Your task to perform on an android device: Go to Amazon Image 0: 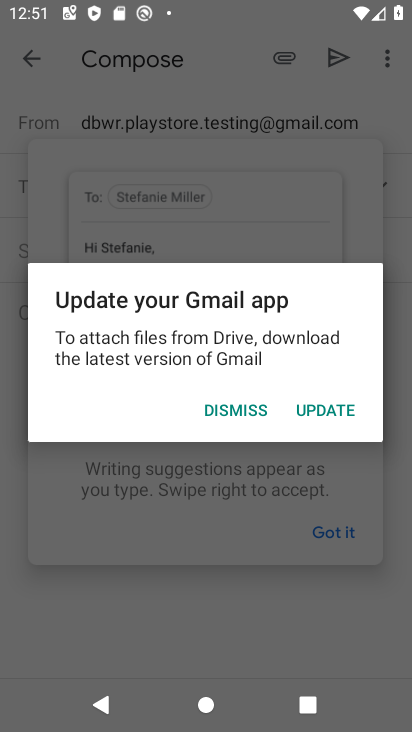
Step 0: press home button
Your task to perform on an android device: Go to Amazon Image 1: 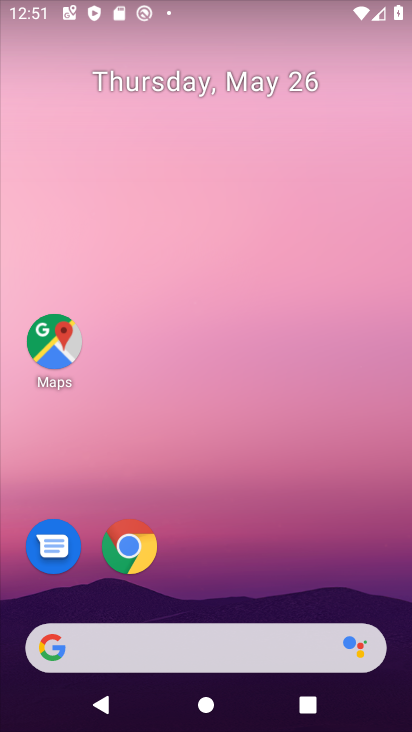
Step 1: click (132, 550)
Your task to perform on an android device: Go to Amazon Image 2: 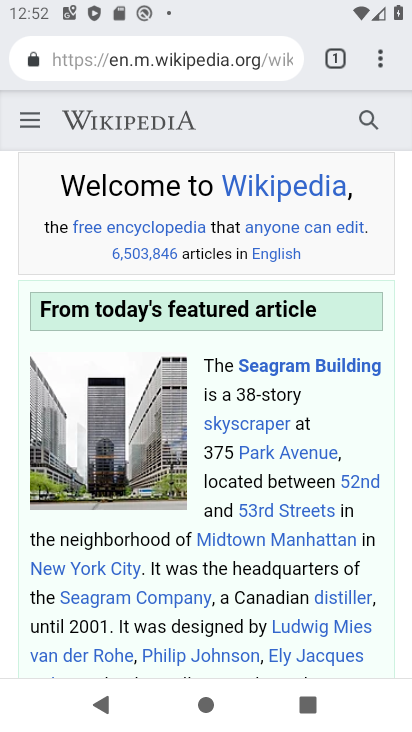
Step 2: click (193, 56)
Your task to perform on an android device: Go to Amazon Image 3: 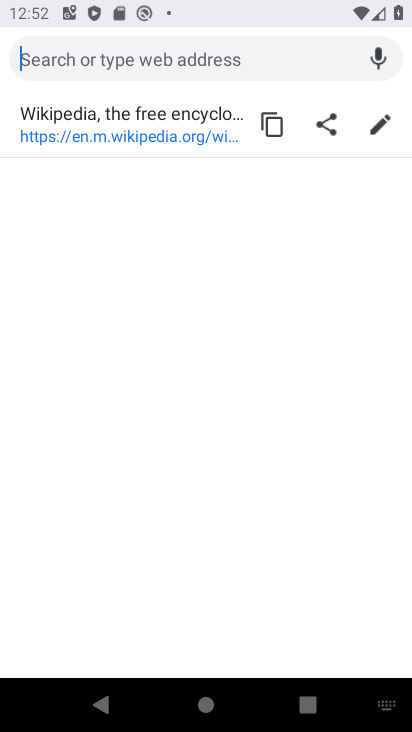
Step 3: type " Amazon"
Your task to perform on an android device: Go to Amazon Image 4: 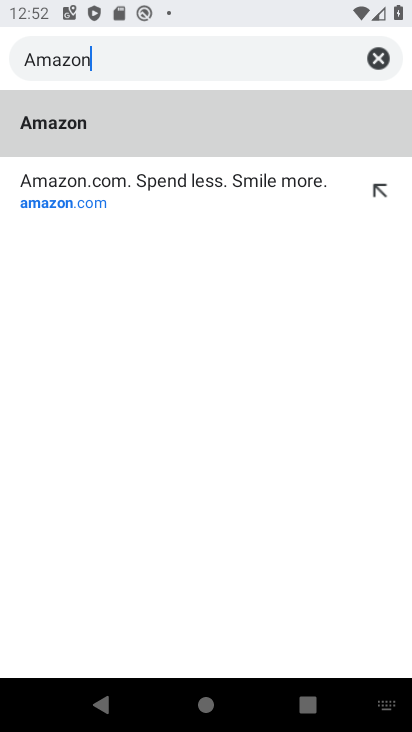
Step 4: click (72, 136)
Your task to perform on an android device: Go to Amazon Image 5: 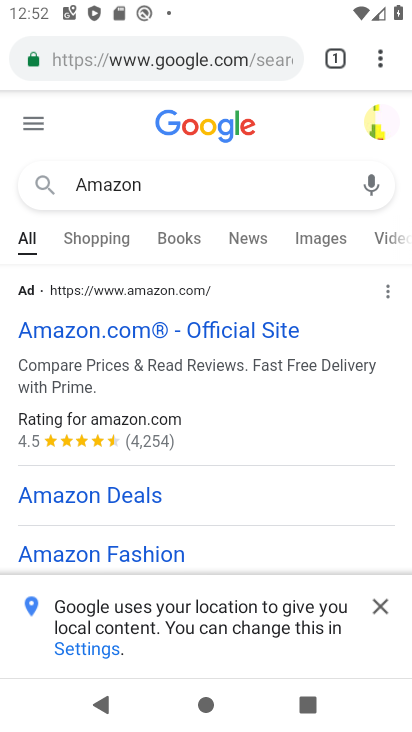
Step 5: click (111, 332)
Your task to perform on an android device: Go to Amazon Image 6: 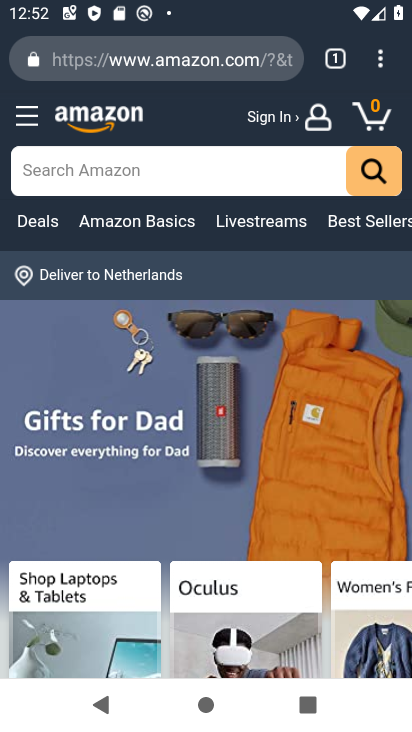
Step 6: task complete